Your task to perform on an android device: visit the assistant section in the google photos Image 0: 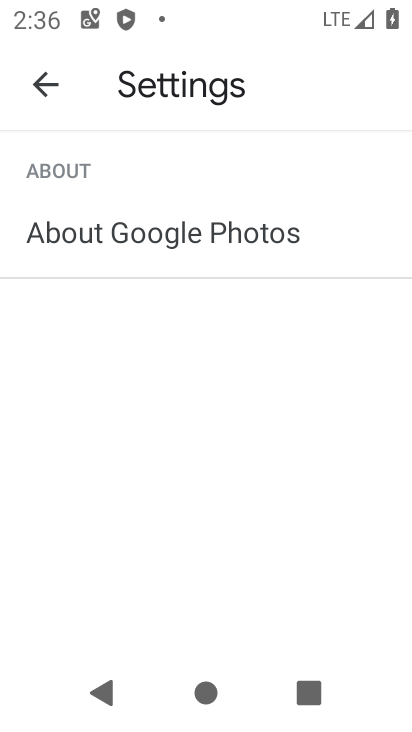
Step 0: press home button
Your task to perform on an android device: visit the assistant section in the google photos Image 1: 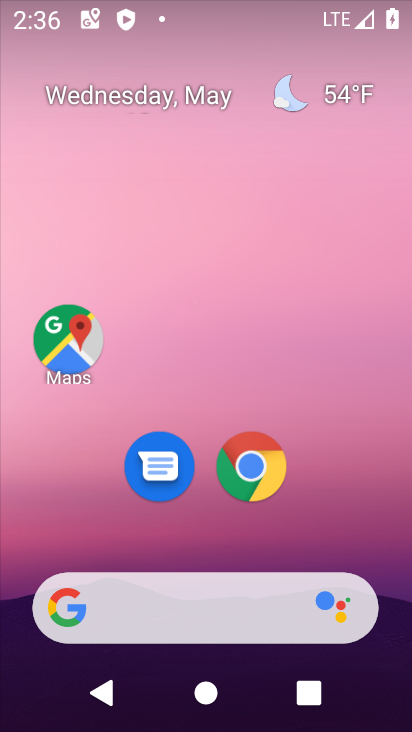
Step 1: drag from (372, 536) to (325, 222)
Your task to perform on an android device: visit the assistant section in the google photos Image 2: 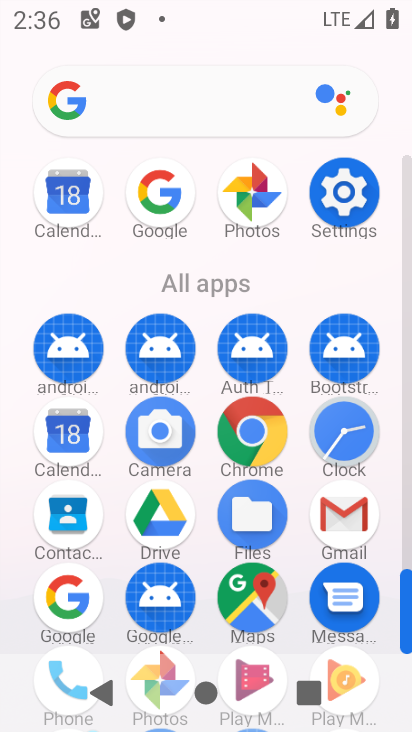
Step 2: click (153, 647)
Your task to perform on an android device: visit the assistant section in the google photos Image 3: 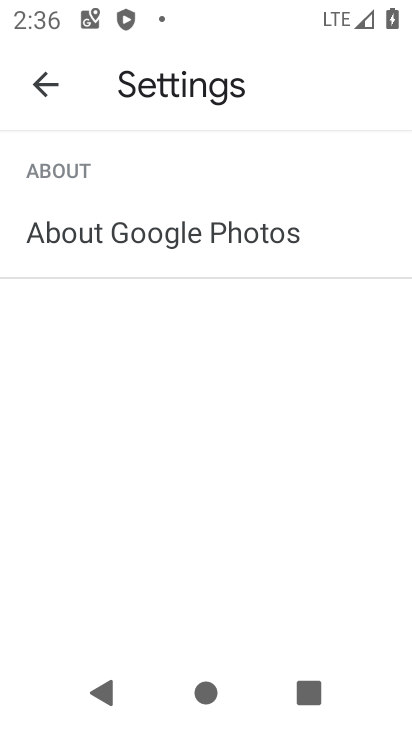
Step 3: click (42, 90)
Your task to perform on an android device: visit the assistant section in the google photos Image 4: 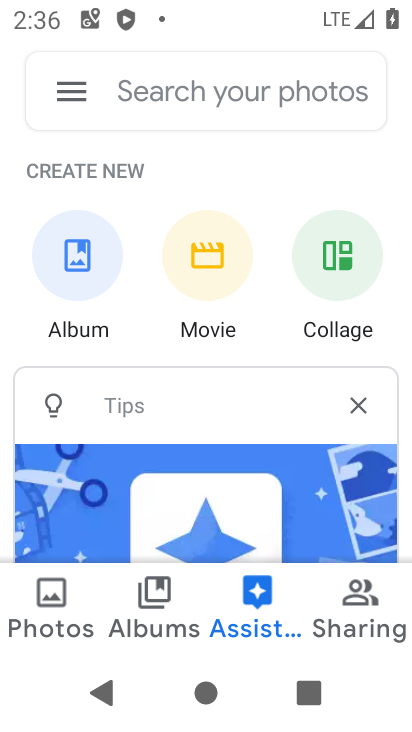
Step 4: task complete